Your task to perform on an android device: turn on bluetooth scan Image 0: 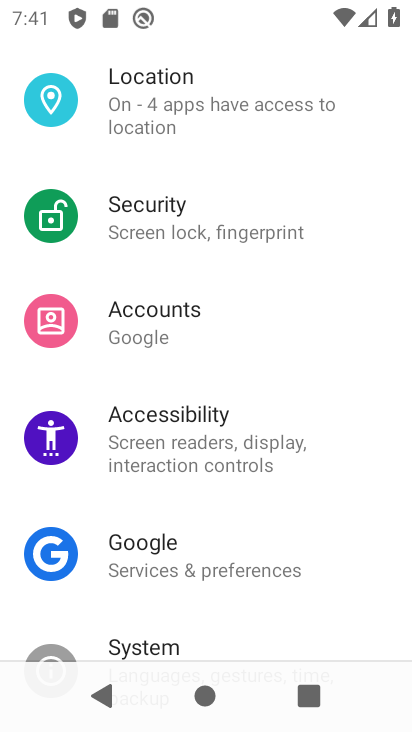
Step 0: press home button
Your task to perform on an android device: turn on bluetooth scan Image 1: 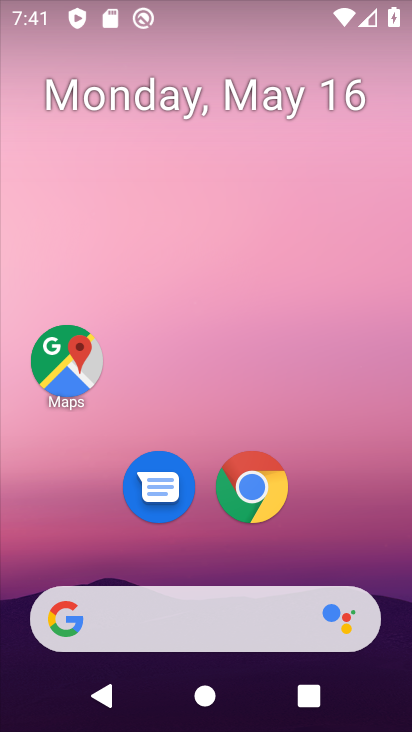
Step 1: drag from (272, 436) to (257, 96)
Your task to perform on an android device: turn on bluetooth scan Image 2: 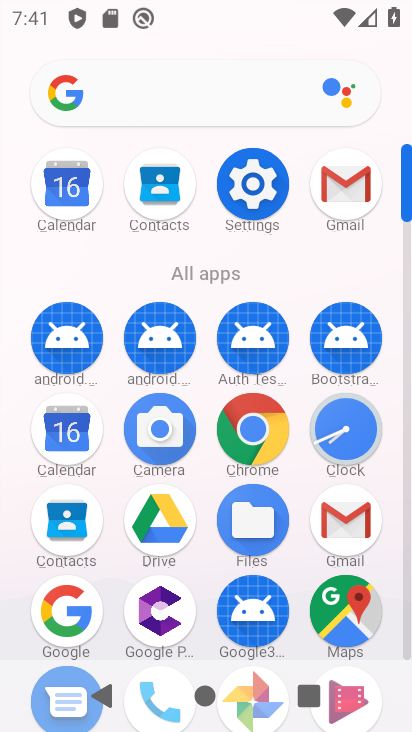
Step 2: click (258, 195)
Your task to perform on an android device: turn on bluetooth scan Image 3: 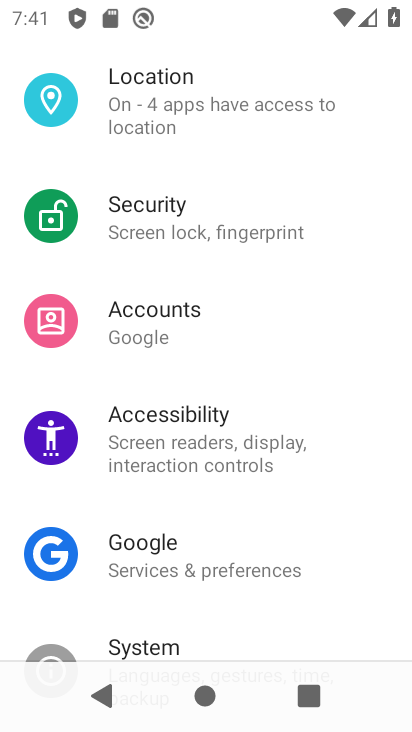
Step 3: click (218, 91)
Your task to perform on an android device: turn on bluetooth scan Image 4: 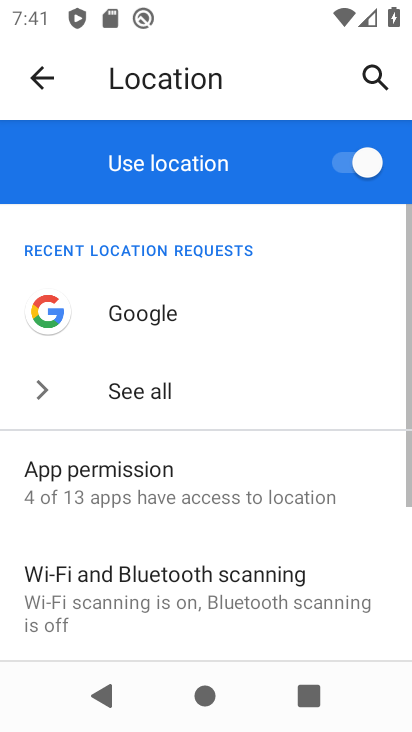
Step 4: click (218, 593)
Your task to perform on an android device: turn on bluetooth scan Image 5: 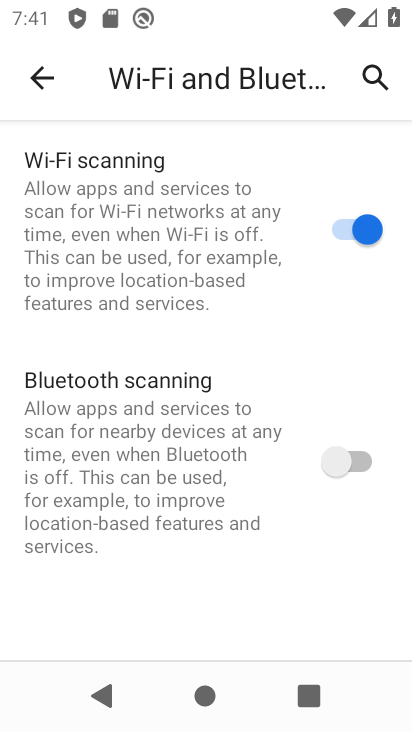
Step 5: click (353, 452)
Your task to perform on an android device: turn on bluetooth scan Image 6: 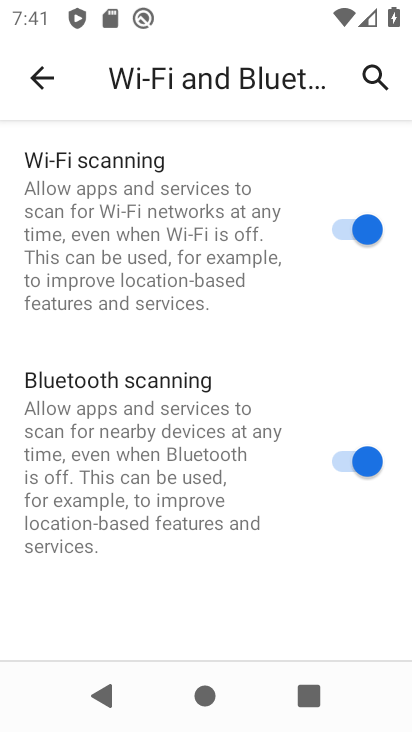
Step 6: task complete